Your task to perform on an android device: Go to Android settings Image 0: 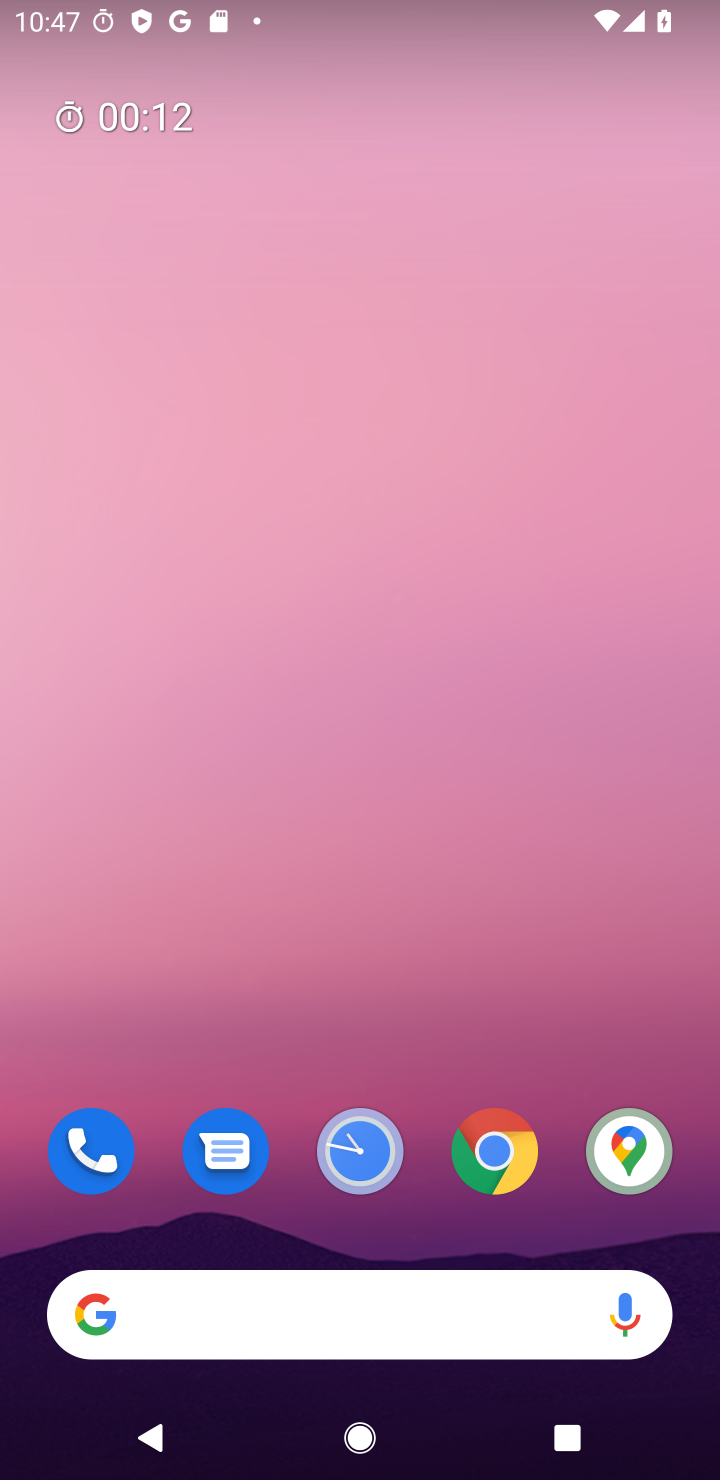
Step 0: drag from (573, 1094) to (480, 525)
Your task to perform on an android device: Go to Android settings Image 1: 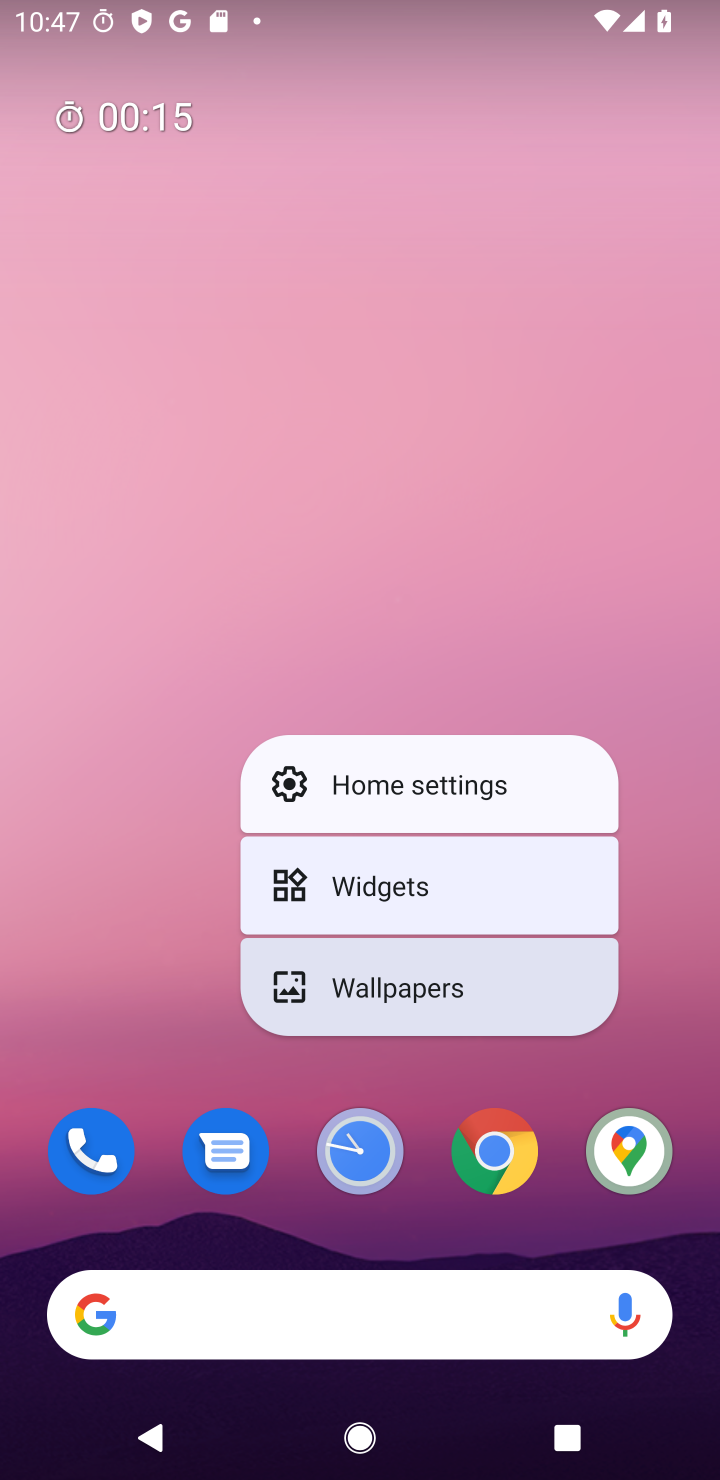
Step 1: click (520, 586)
Your task to perform on an android device: Go to Android settings Image 2: 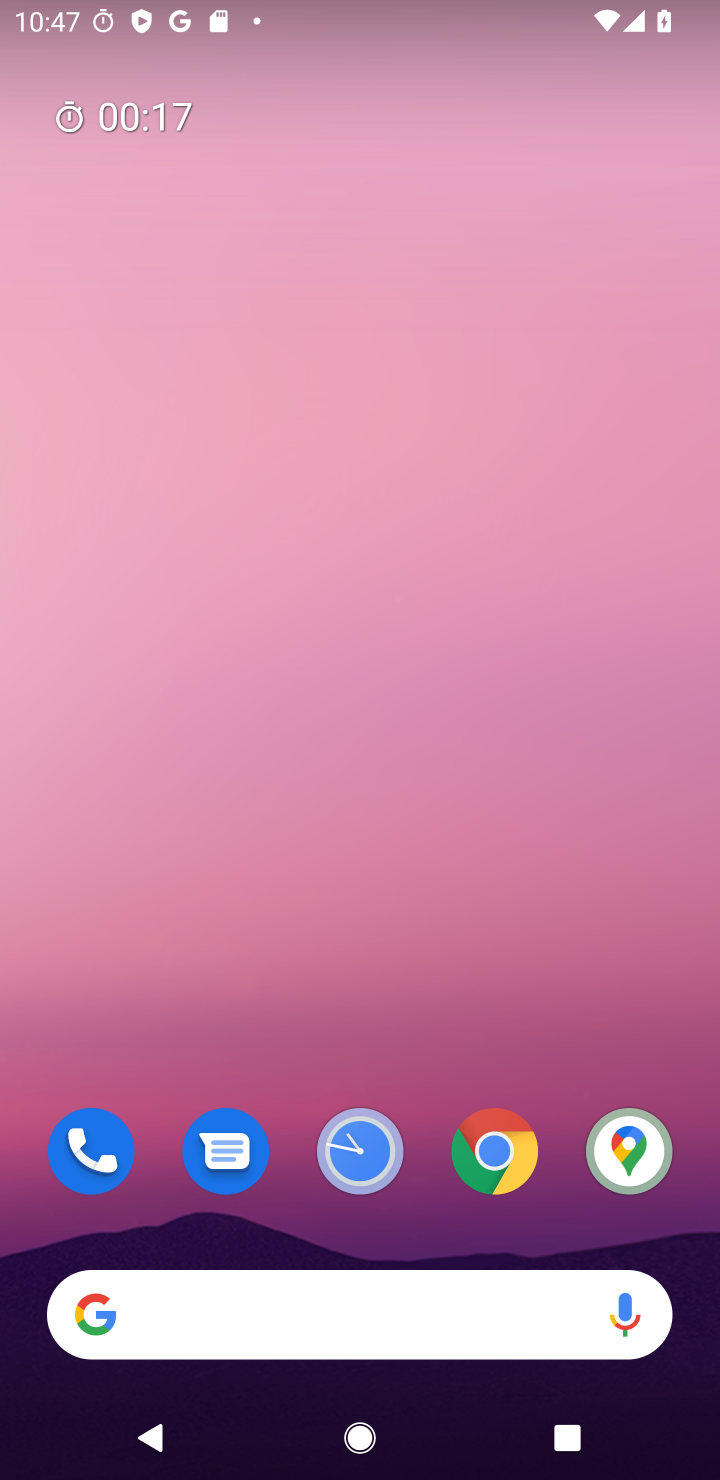
Step 2: drag from (513, 1003) to (304, 266)
Your task to perform on an android device: Go to Android settings Image 3: 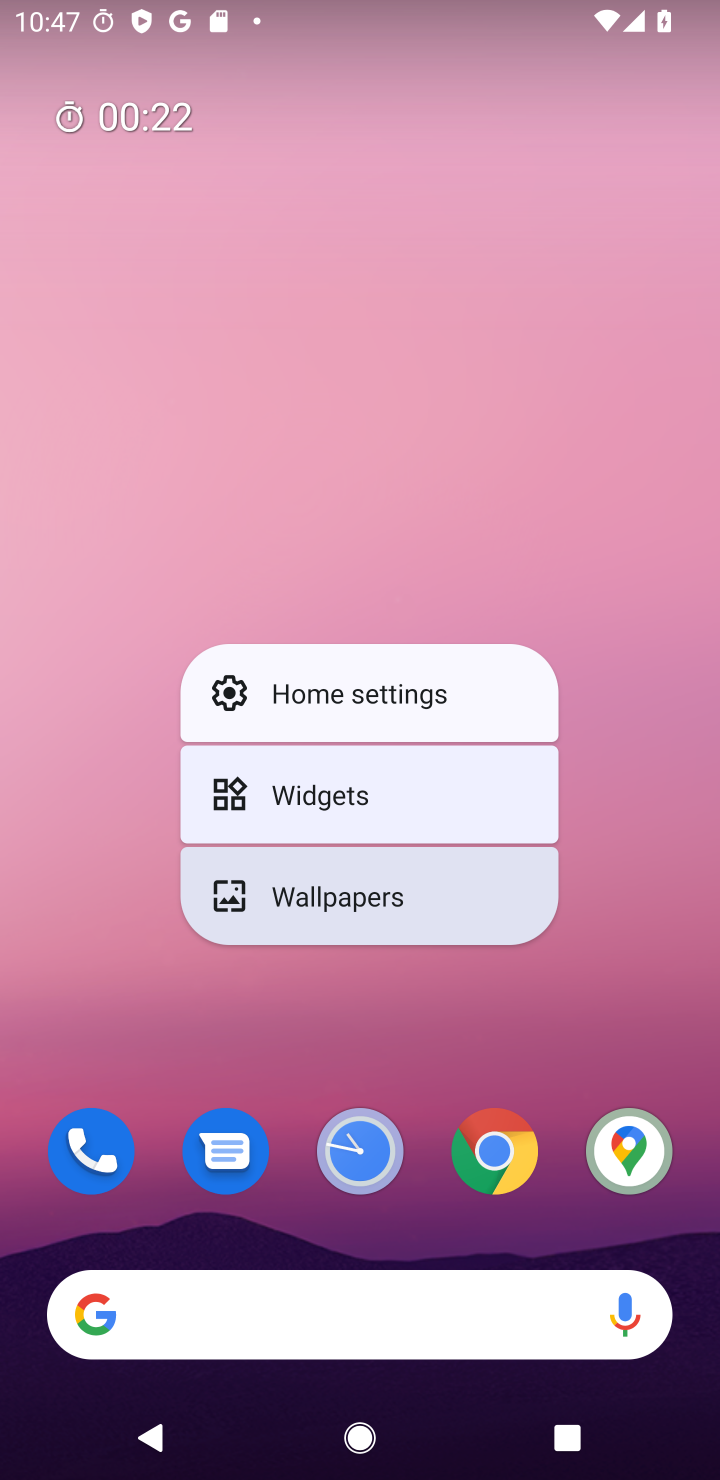
Step 3: click (499, 465)
Your task to perform on an android device: Go to Android settings Image 4: 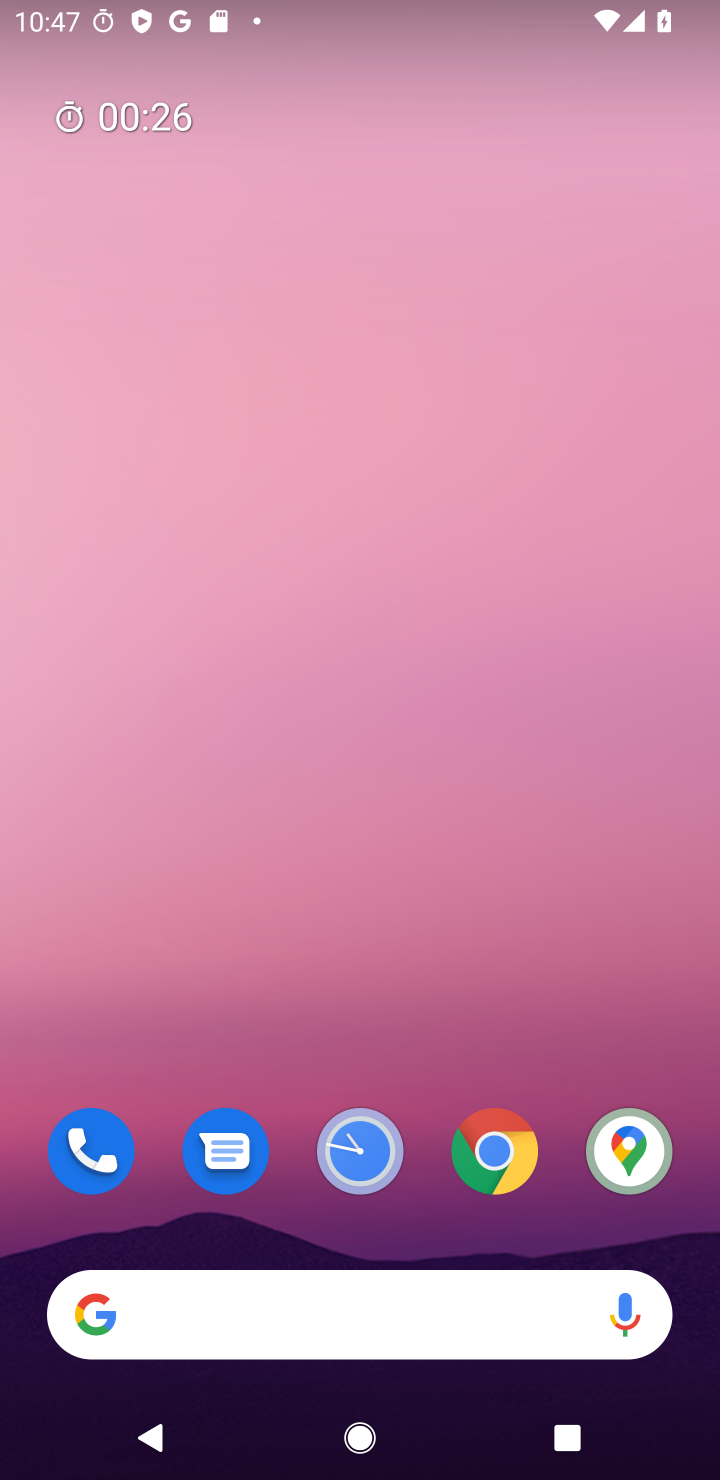
Step 4: drag from (535, 997) to (402, 110)
Your task to perform on an android device: Go to Android settings Image 5: 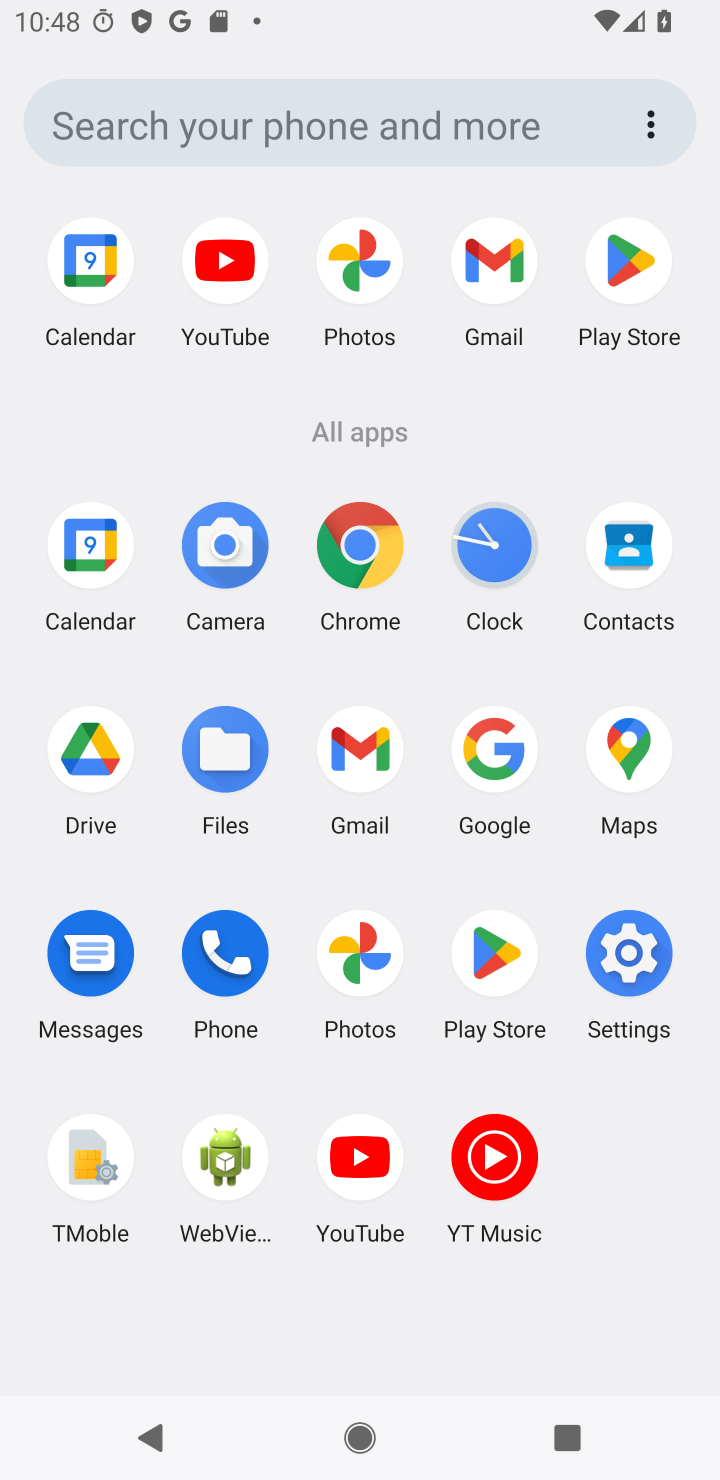
Step 5: click (630, 967)
Your task to perform on an android device: Go to Android settings Image 6: 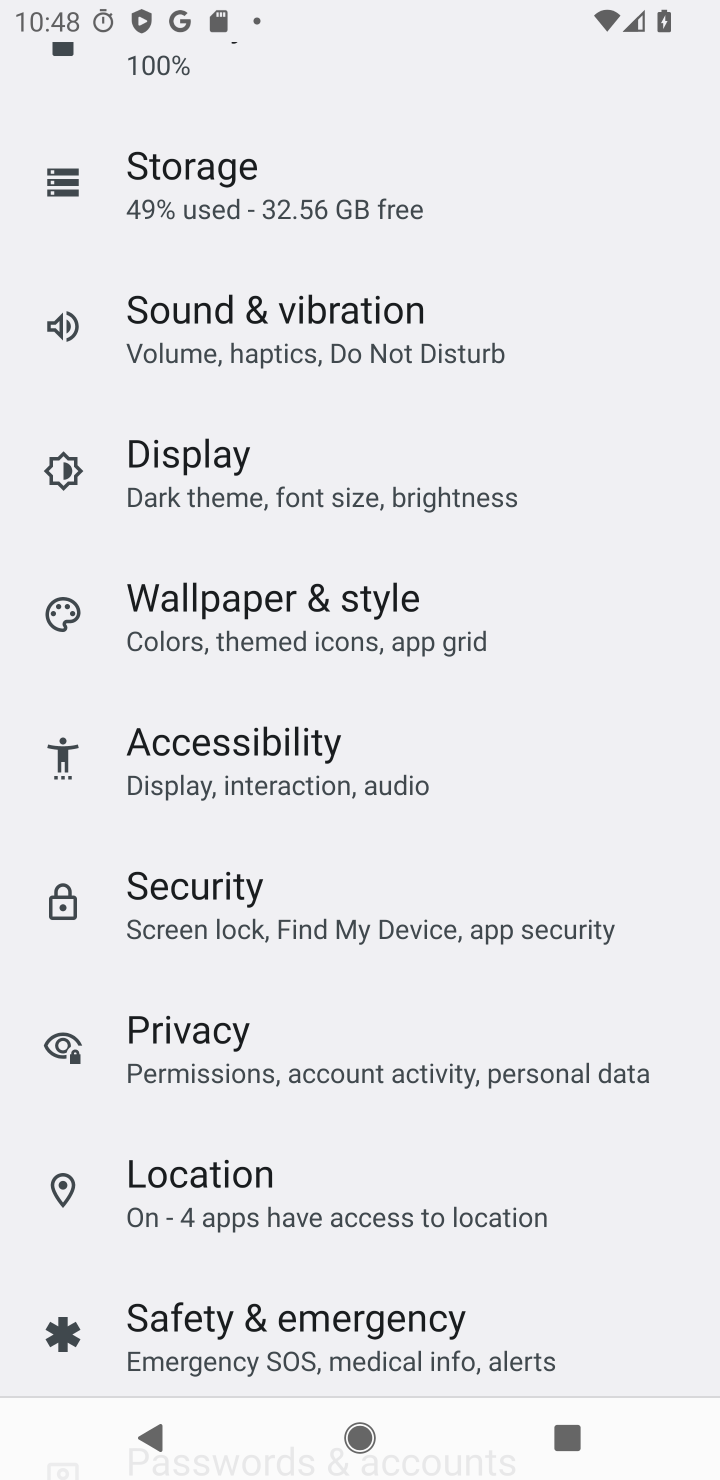
Step 6: task complete